Your task to perform on an android device: visit the assistant section in the google photos Image 0: 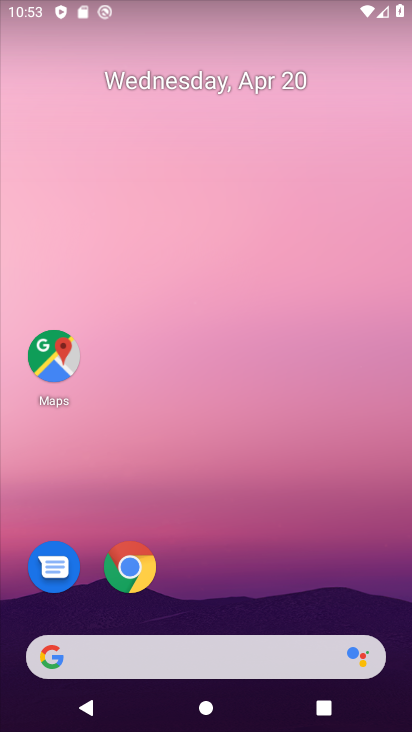
Step 0: drag from (202, 538) to (156, 691)
Your task to perform on an android device: visit the assistant section in the google photos Image 1: 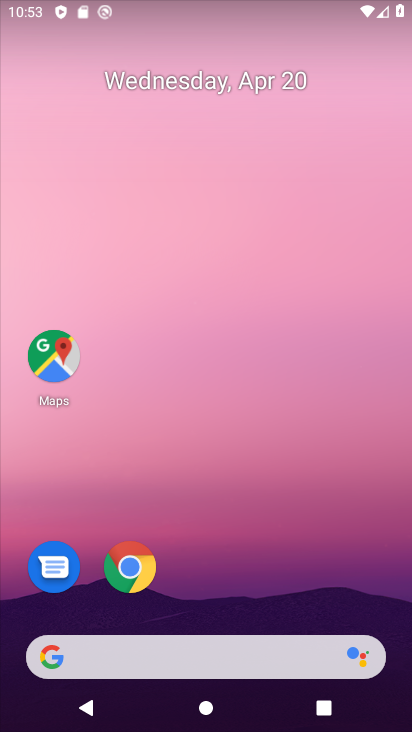
Step 1: drag from (195, 621) to (196, 20)
Your task to perform on an android device: visit the assistant section in the google photos Image 2: 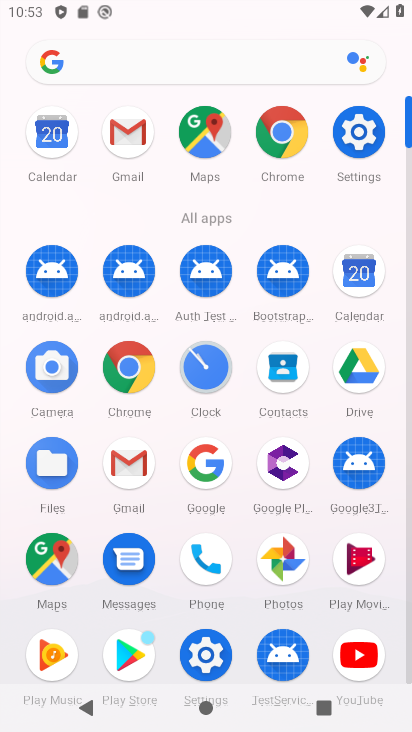
Step 2: click (281, 557)
Your task to perform on an android device: visit the assistant section in the google photos Image 3: 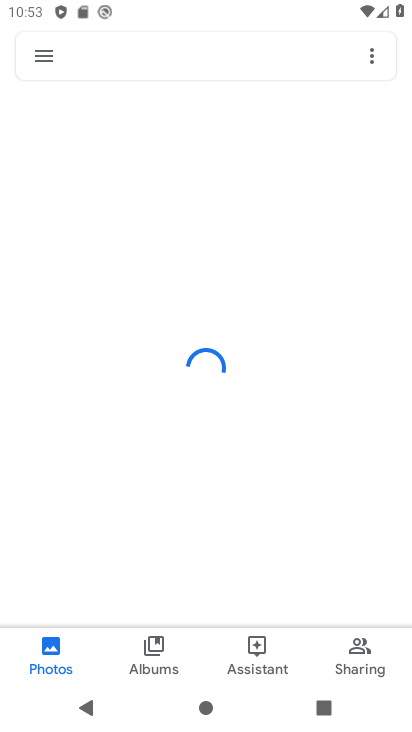
Step 3: click (242, 665)
Your task to perform on an android device: visit the assistant section in the google photos Image 4: 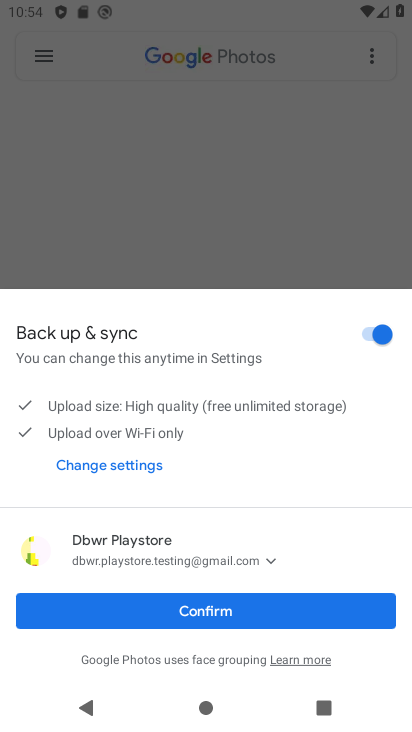
Step 4: click (258, 613)
Your task to perform on an android device: visit the assistant section in the google photos Image 5: 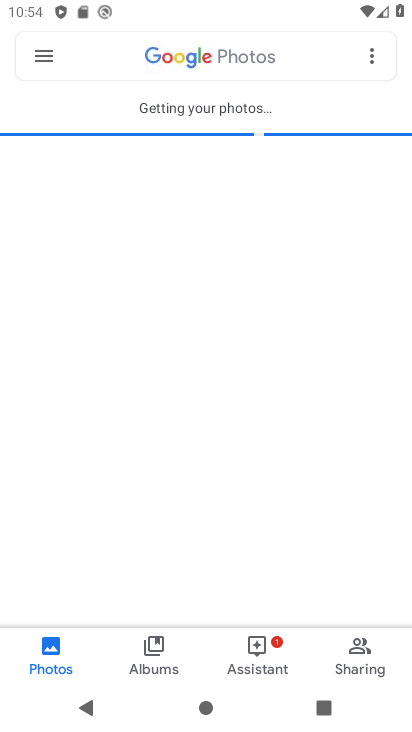
Step 5: click (279, 659)
Your task to perform on an android device: visit the assistant section in the google photos Image 6: 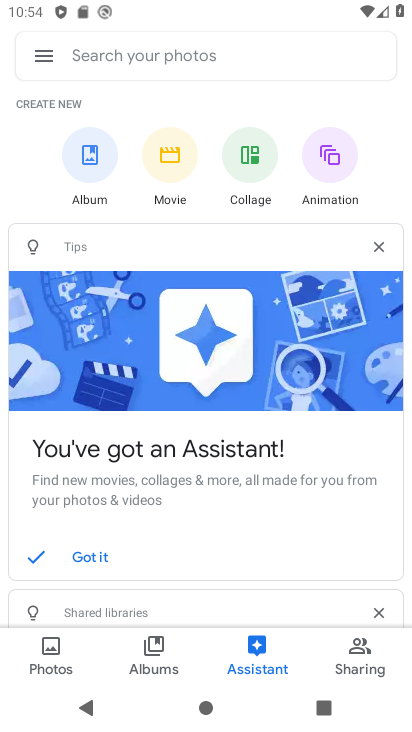
Step 6: task complete